Your task to perform on an android device: show emergency info Image 0: 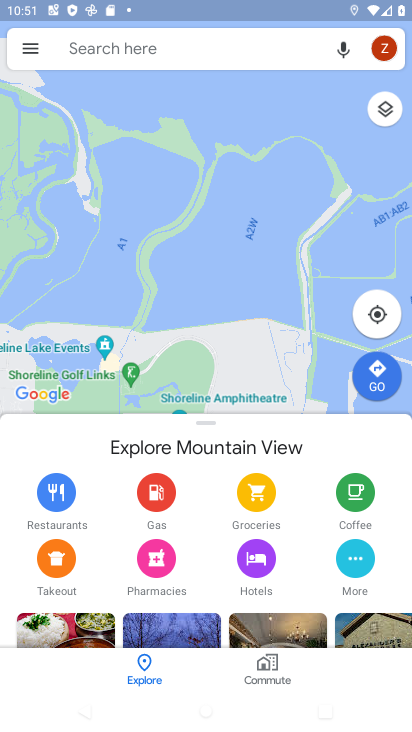
Step 0: press home button
Your task to perform on an android device: show emergency info Image 1: 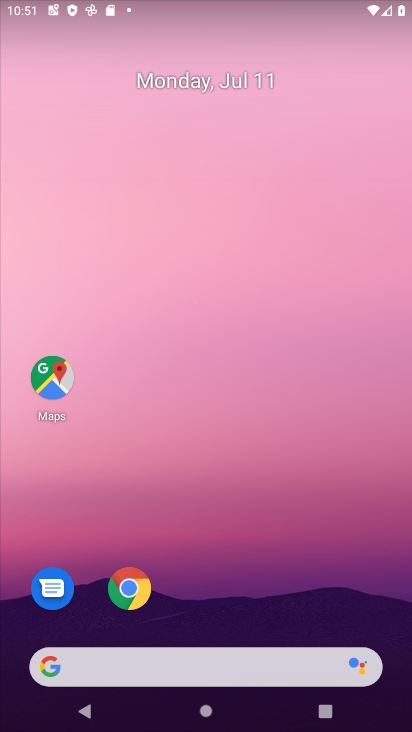
Step 1: drag from (189, 454) to (305, 0)
Your task to perform on an android device: show emergency info Image 2: 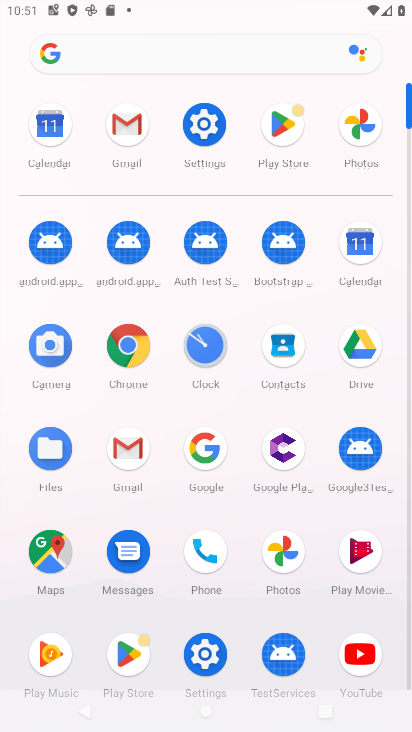
Step 2: click (194, 137)
Your task to perform on an android device: show emergency info Image 3: 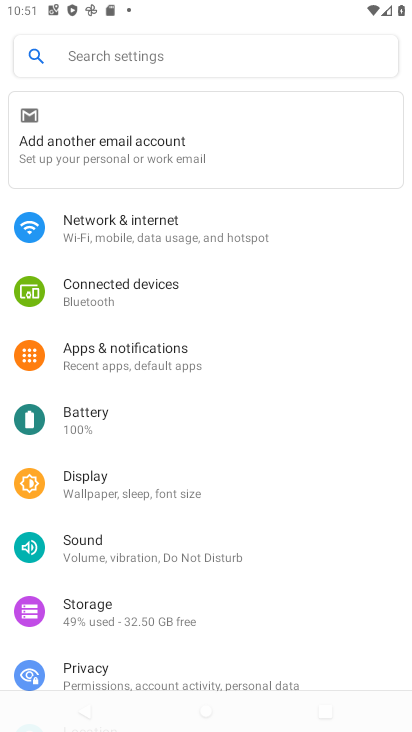
Step 3: drag from (244, 599) to (206, 144)
Your task to perform on an android device: show emergency info Image 4: 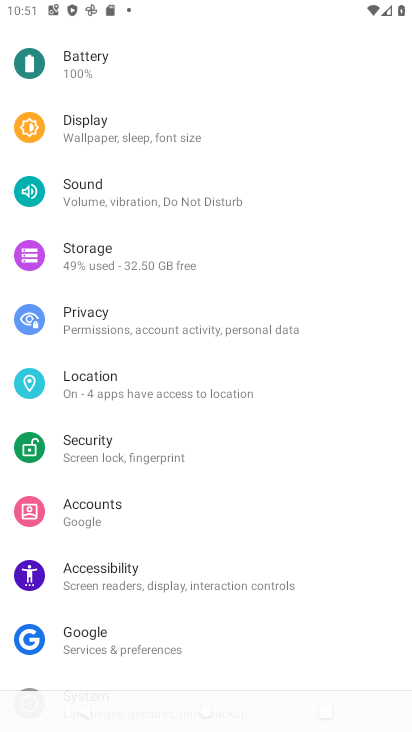
Step 4: drag from (194, 597) to (255, 119)
Your task to perform on an android device: show emergency info Image 5: 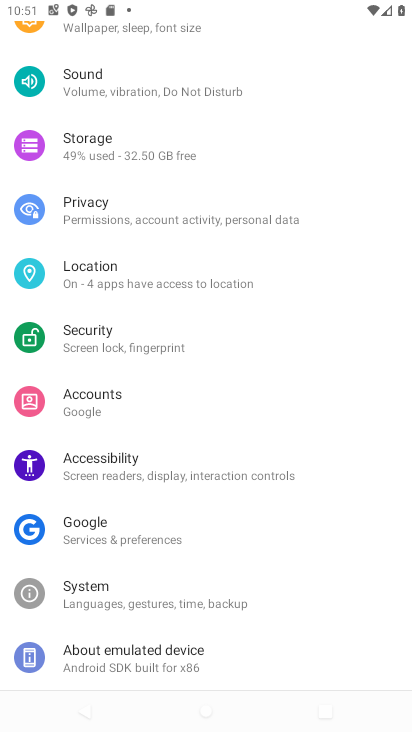
Step 5: drag from (231, 321) to (278, 97)
Your task to perform on an android device: show emergency info Image 6: 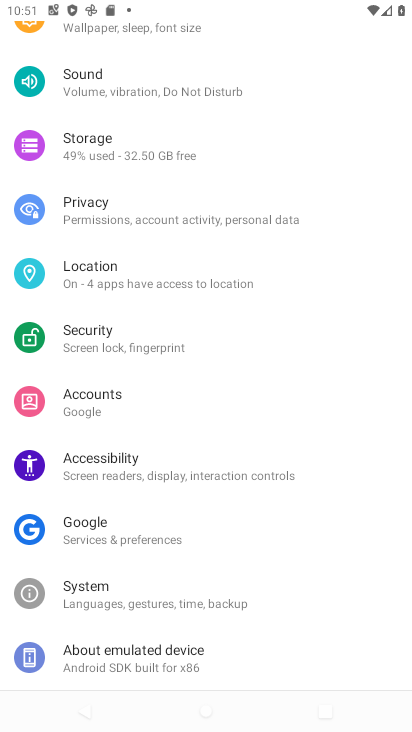
Step 6: click (112, 648)
Your task to perform on an android device: show emergency info Image 7: 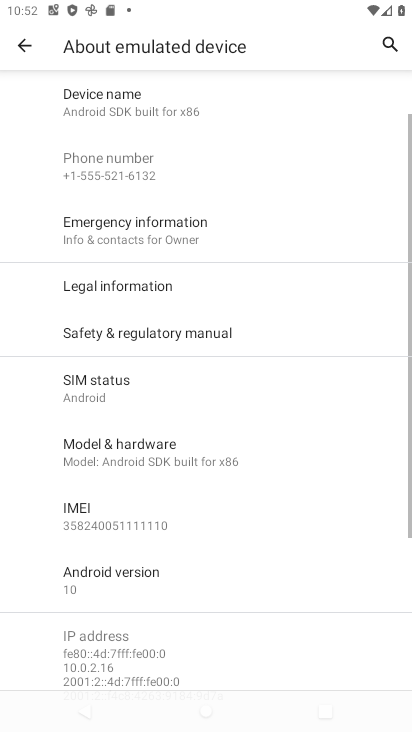
Step 7: click (186, 234)
Your task to perform on an android device: show emergency info Image 8: 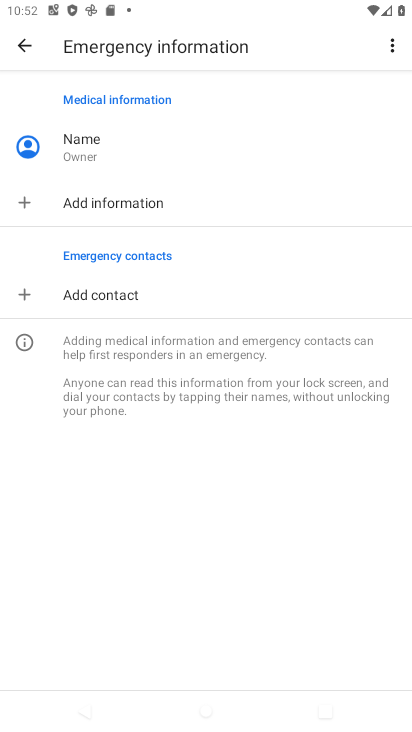
Step 8: task complete